Your task to perform on an android device: Clear all items from cart on costco.com. Search for bose soundlink mini on costco.com, select the first entry, and add it to the cart. Image 0: 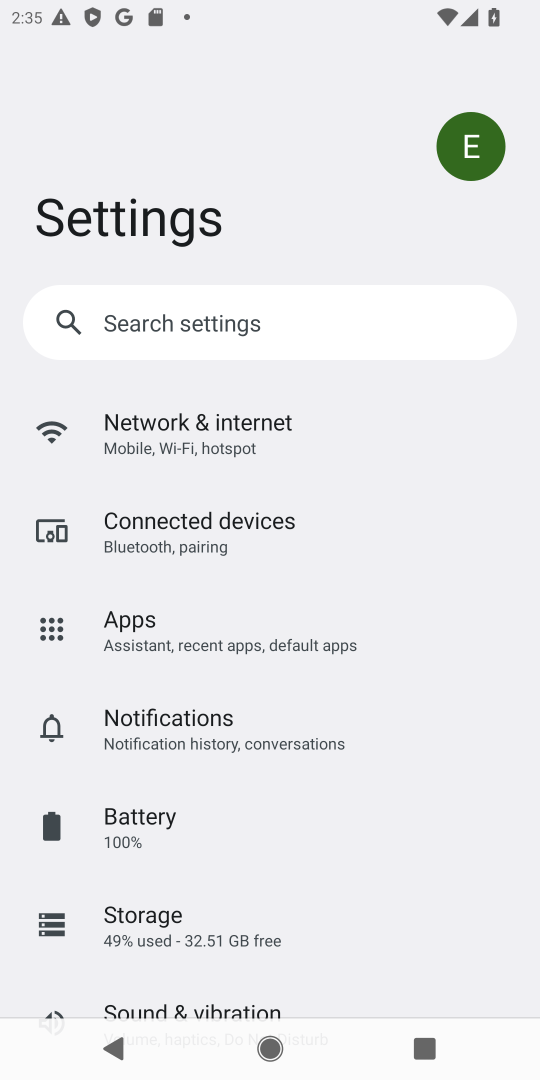
Step 0: press home button
Your task to perform on an android device: Clear all items from cart on costco.com. Search for bose soundlink mini on costco.com, select the first entry, and add it to the cart. Image 1: 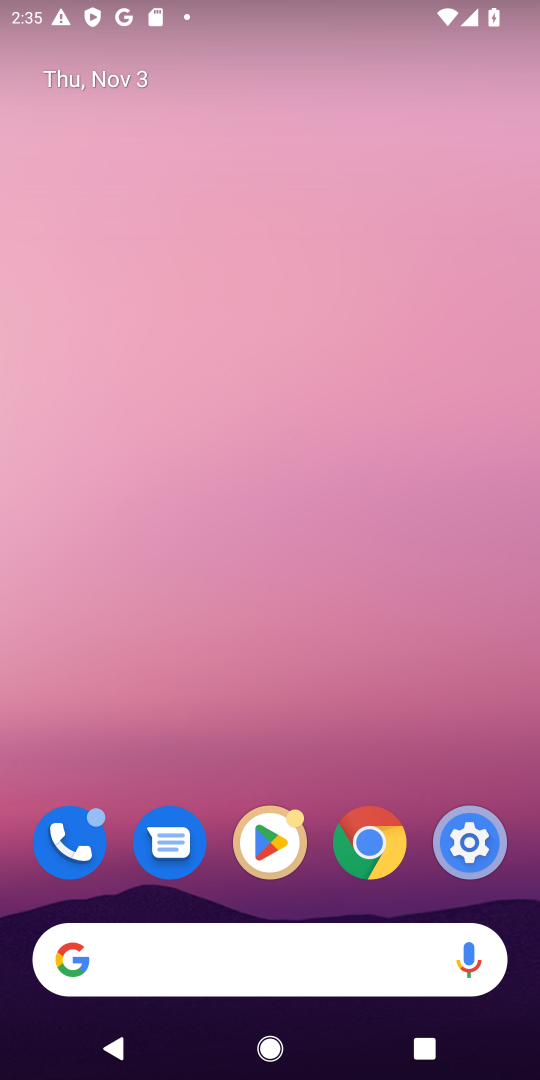
Step 1: click (107, 952)
Your task to perform on an android device: Clear all items from cart on costco.com. Search for bose soundlink mini on costco.com, select the first entry, and add it to the cart. Image 2: 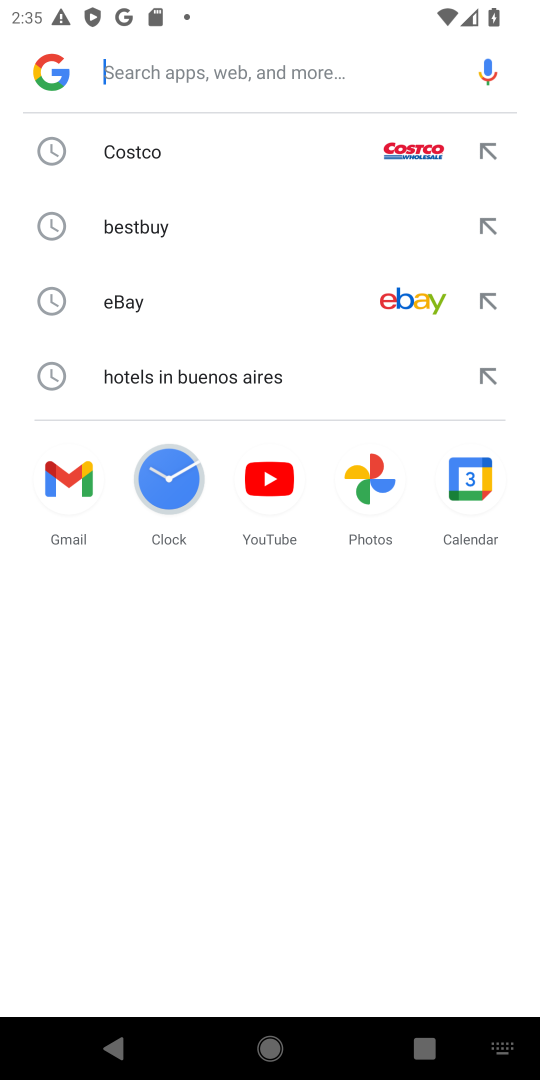
Step 2: type "costco.com"
Your task to perform on an android device: Clear all items from cart on costco.com. Search for bose soundlink mini on costco.com, select the first entry, and add it to the cart. Image 3: 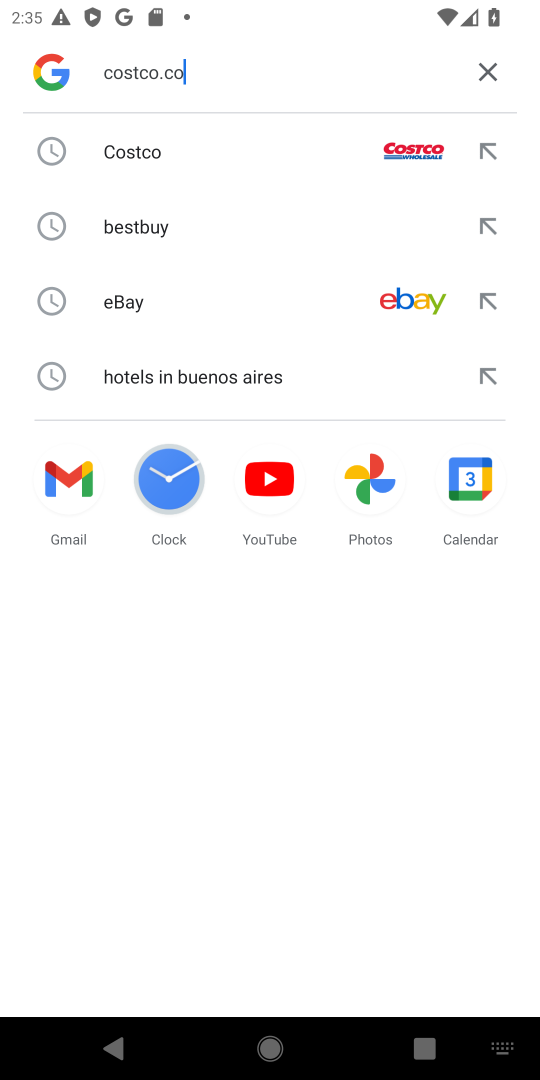
Step 3: press enter
Your task to perform on an android device: Clear all items from cart on costco.com. Search for bose soundlink mini on costco.com, select the first entry, and add it to the cart. Image 4: 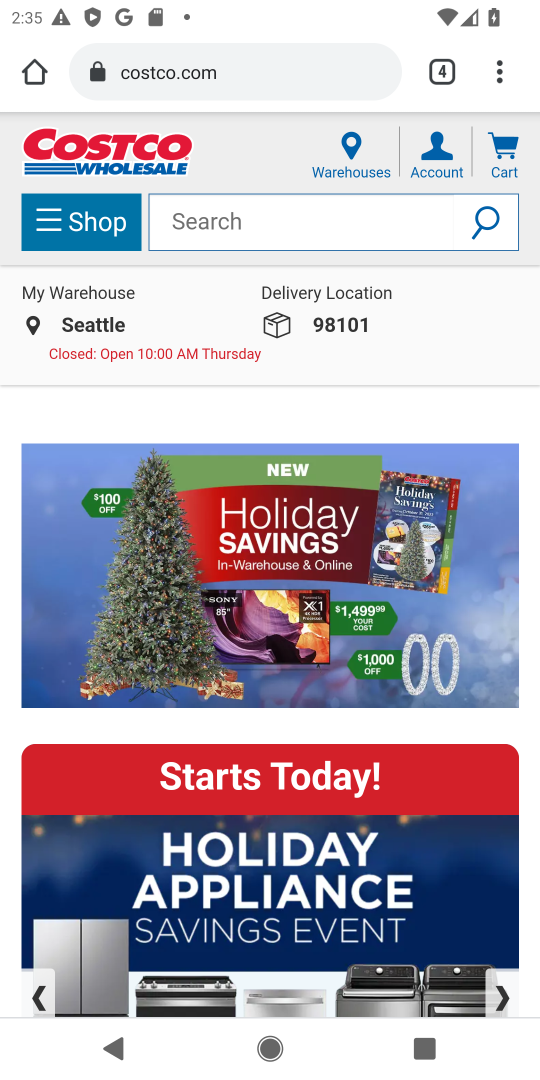
Step 4: click (501, 152)
Your task to perform on an android device: Clear all items from cart on costco.com. Search for bose soundlink mini on costco.com, select the first entry, and add it to the cart. Image 5: 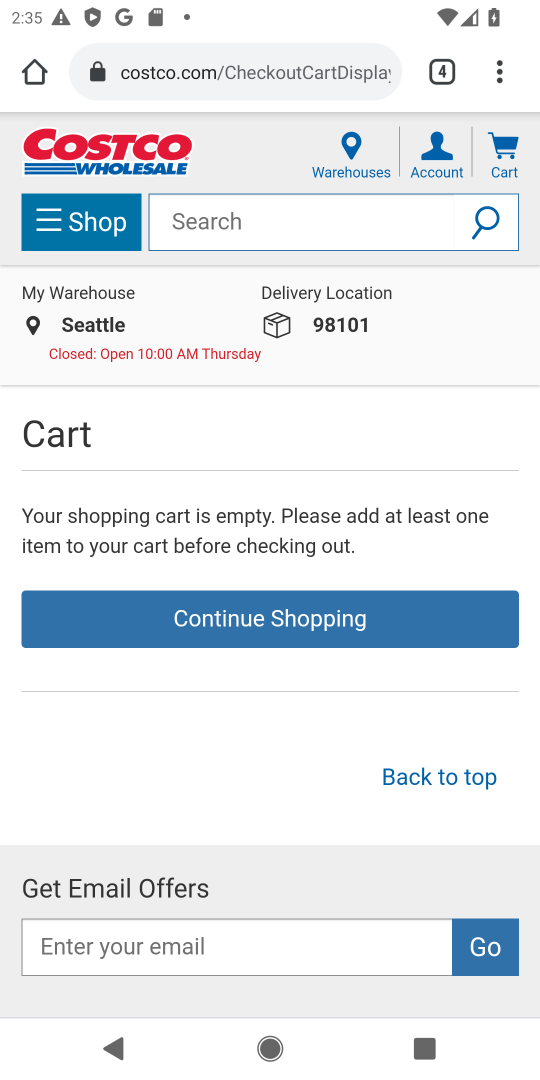
Step 5: click (182, 219)
Your task to perform on an android device: Clear all items from cart on costco.com. Search for bose soundlink mini on costco.com, select the first entry, and add it to the cart. Image 6: 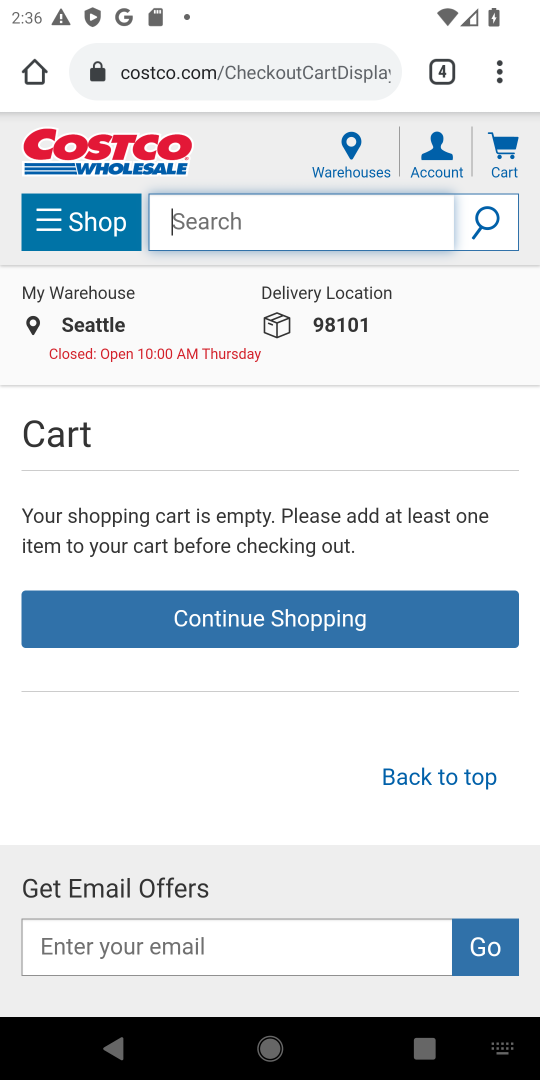
Step 6: type "bose soundlink mini"
Your task to perform on an android device: Clear all items from cart on costco.com. Search for bose soundlink mini on costco.com, select the first entry, and add it to the cart. Image 7: 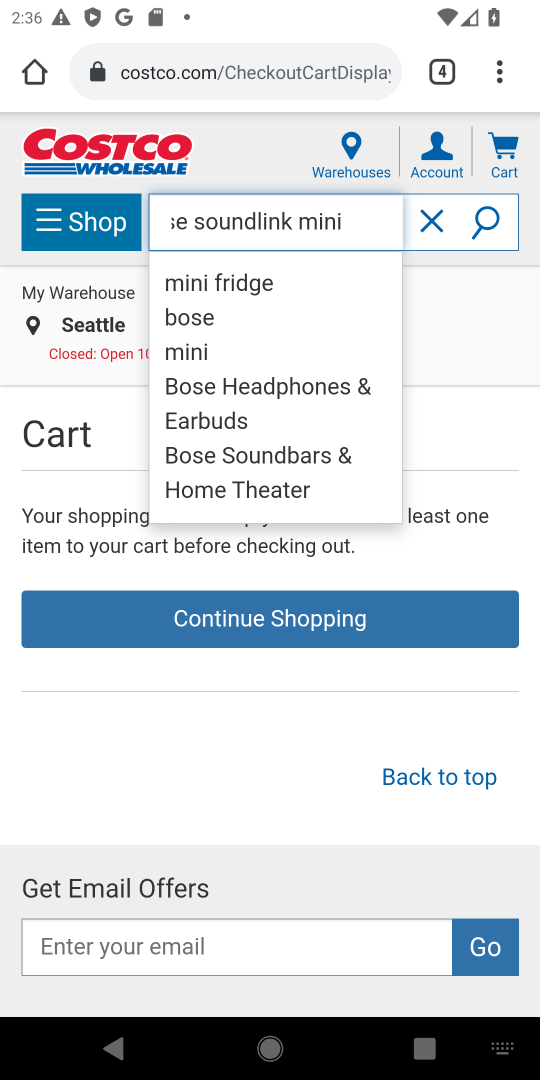
Step 7: click (484, 224)
Your task to perform on an android device: Clear all items from cart on costco.com. Search for bose soundlink mini on costco.com, select the first entry, and add it to the cart. Image 8: 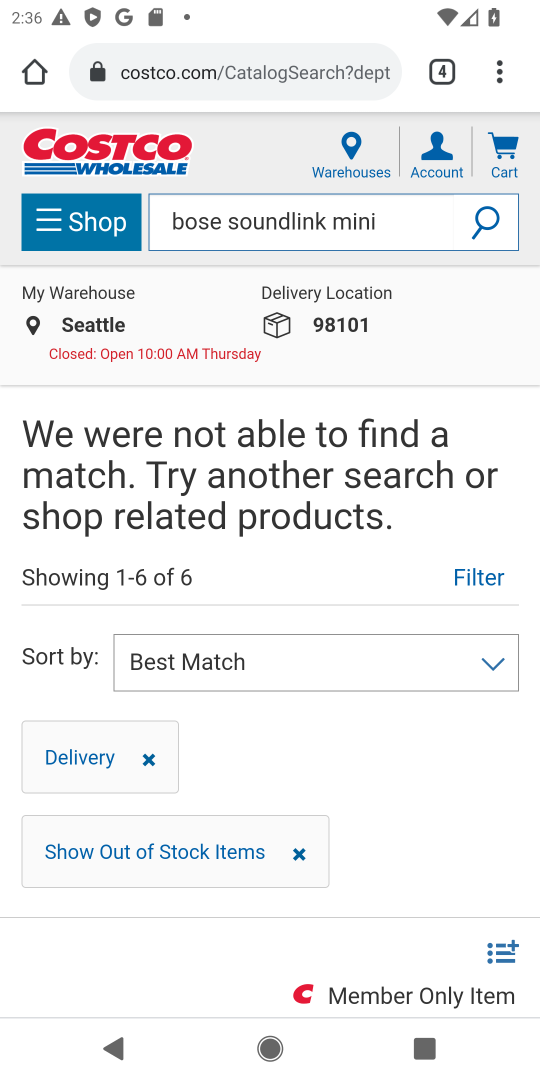
Step 8: task complete